Your task to perform on an android device: toggle improve location accuracy Image 0: 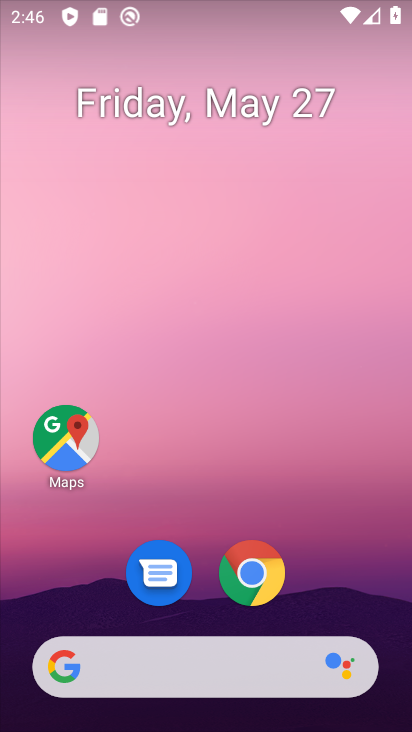
Step 0: drag from (323, 564) to (341, 52)
Your task to perform on an android device: toggle improve location accuracy Image 1: 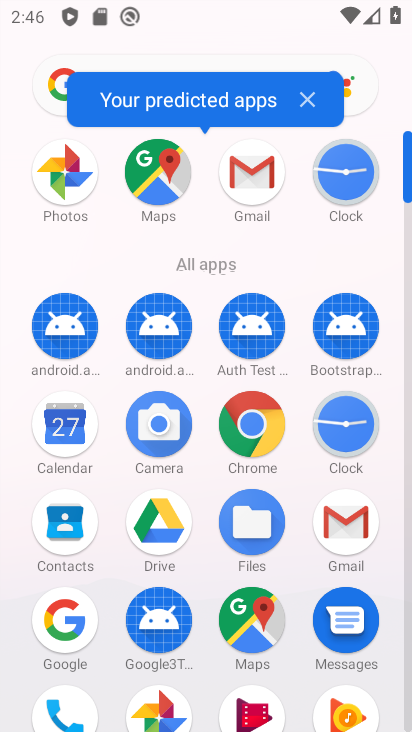
Step 1: drag from (209, 507) to (209, 167)
Your task to perform on an android device: toggle improve location accuracy Image 2: 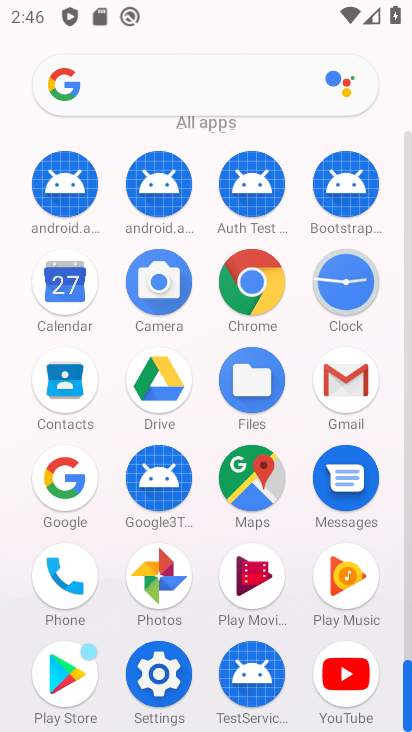
Step 2: click (163, 657)
Your task to perform on an android device: toggle improve location accuracy Image 3: 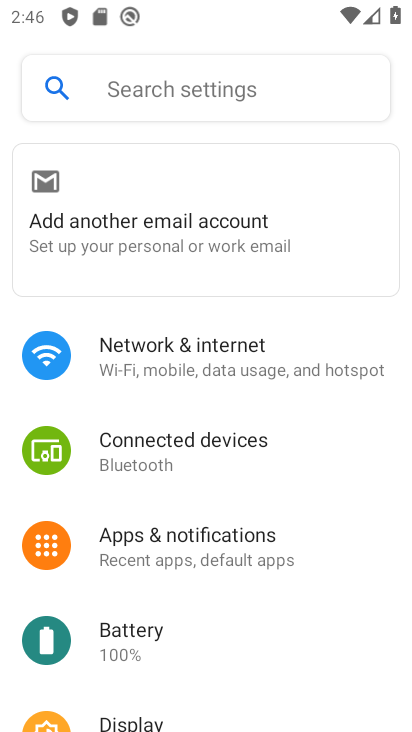
Step 3: drag from (245, 596) to (240, 49)
Your task to perform on an android device: toggle improve location accuracy Image 4: 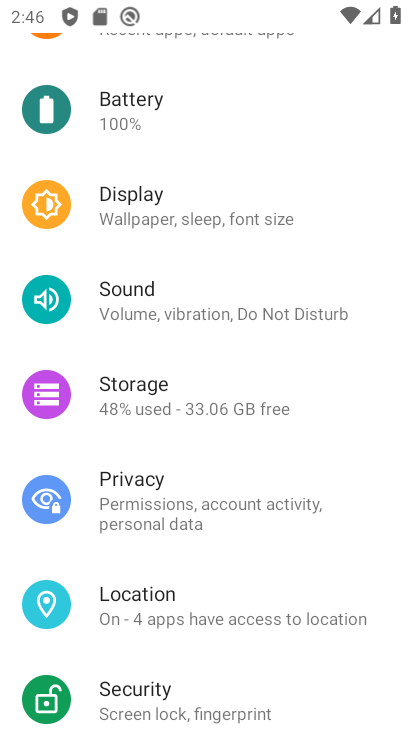
Step 4: click (237, 600)
Your task to perform on an android device: toggle improve location accuracy Image 5: 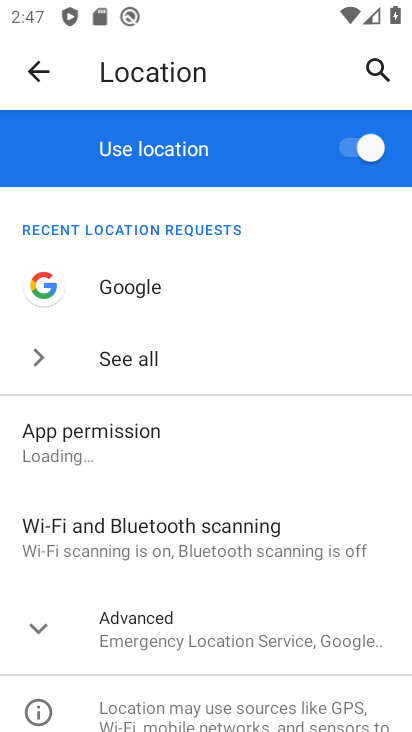
Step 5: drag from (226, 622) to (209, 218)
Your task to perform on an android device: toggle improve location accuracy Image 6: 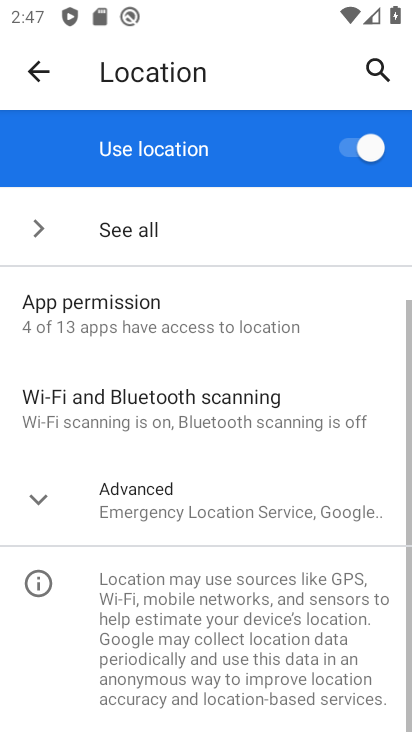
Step 6: click (41, 494)
Your task to perform on an android device: toggle improve location accuracy Image 7: 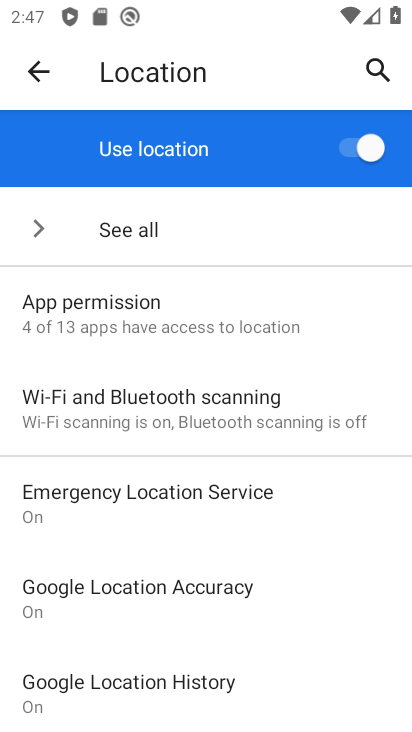
Step 7: click (216, 599)
Your task to perform on an android device: toggle improve location accuracy Image 8: 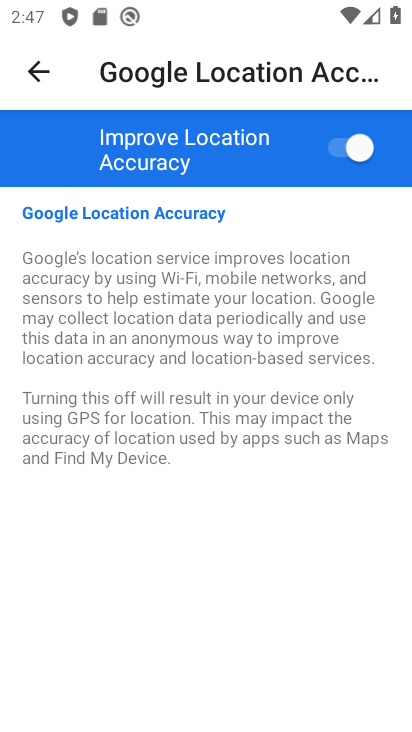
Step 8: click (343, 147)
Your task to perform on an android device: toggle improve location accuracy Image 9: 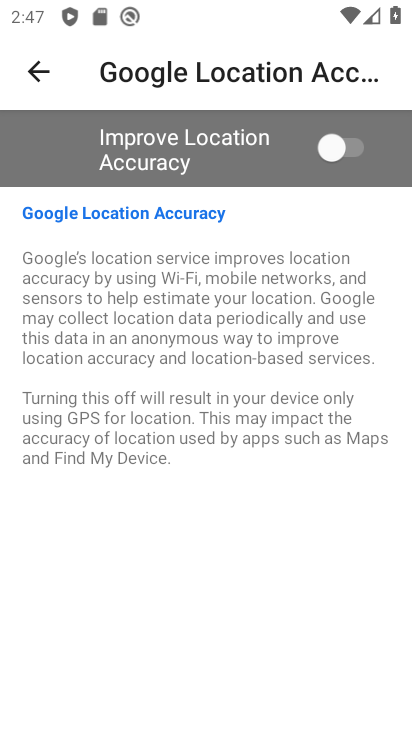
Step 9: task complete